Your task to perform on an android device: open app "eBay: The shopping marketplace" (install if not already installed) Image 0: 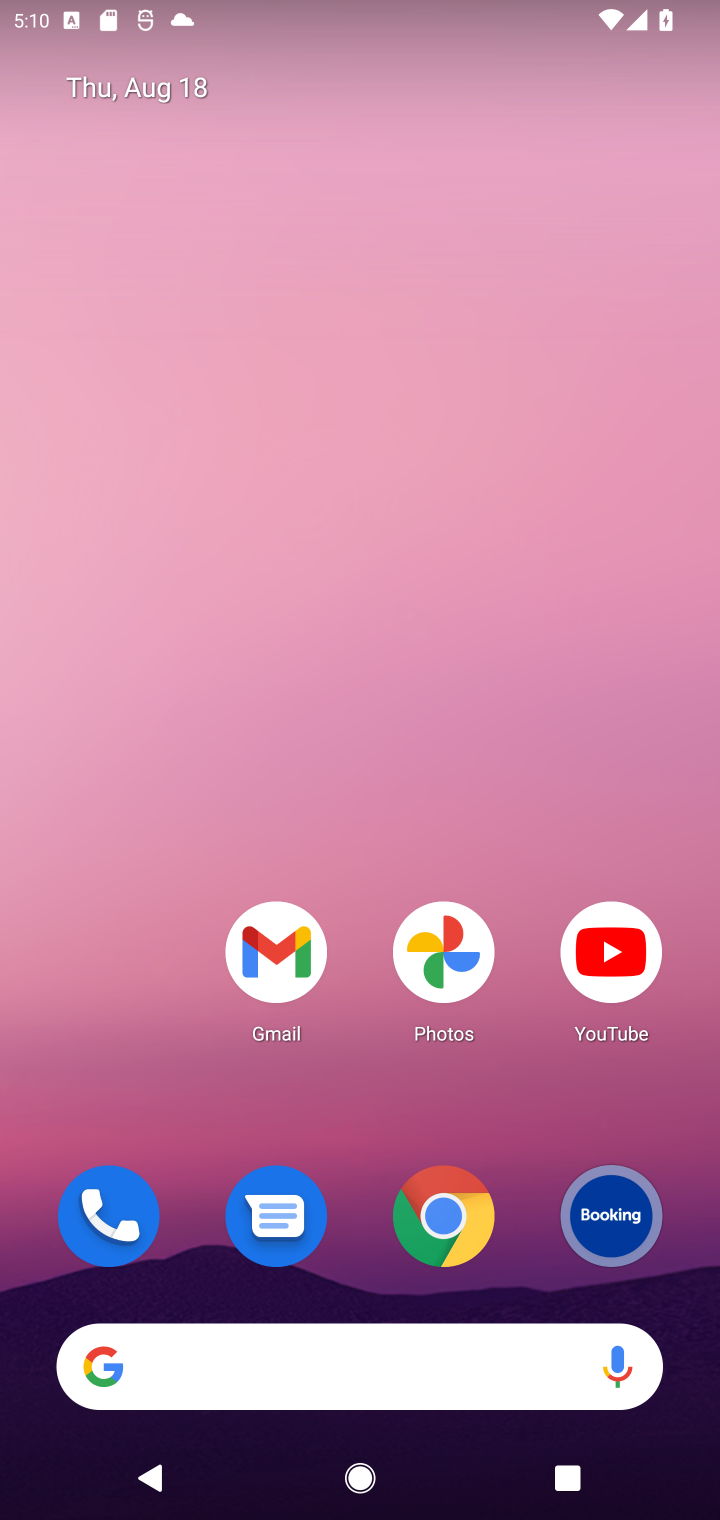
Step 0: drag from (333, 1130) to (352, 340)
Your task to perform on an android device: open app "eBay: The shopping marketplace" (install if not already installed) Image 1: 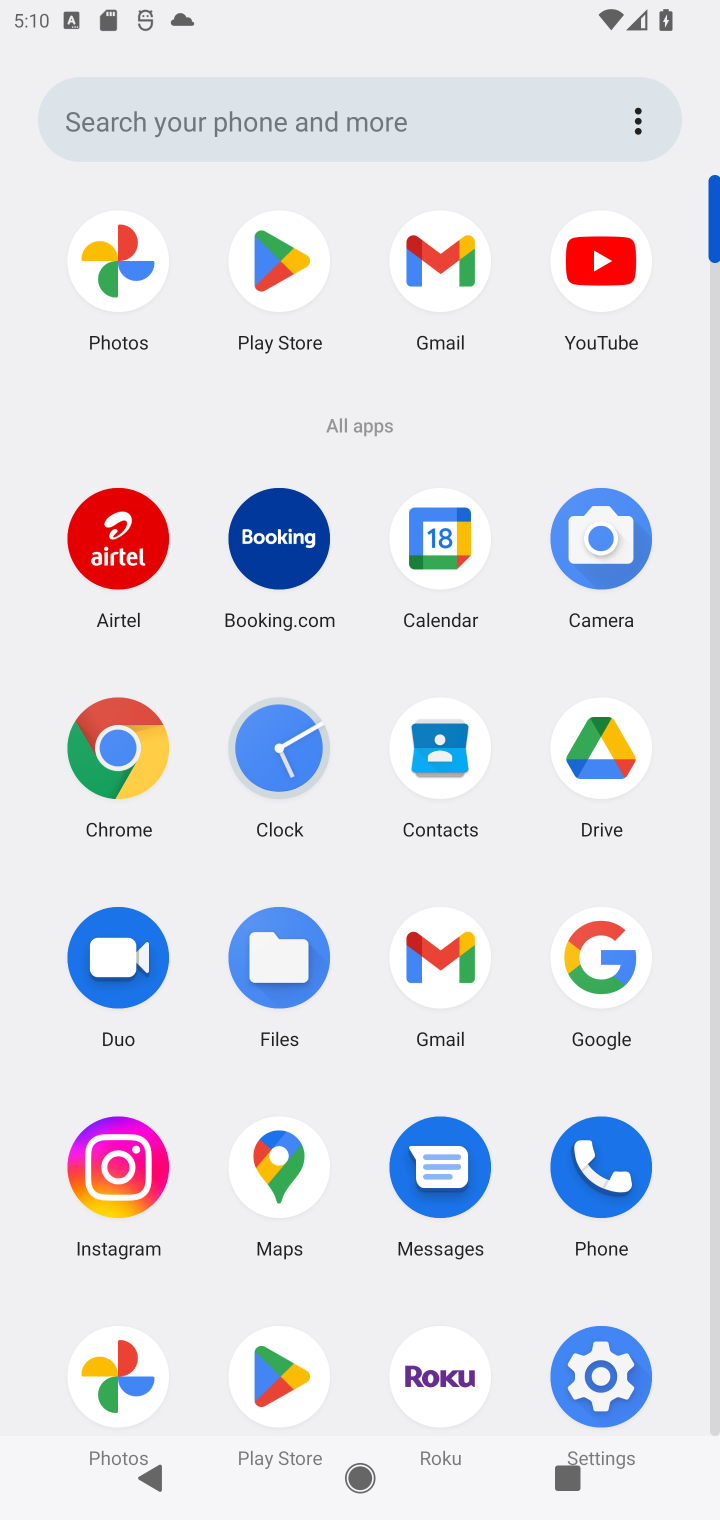
Step 1: click (288, 270)
Your task to perform on an android device: open app "eBay: The shopping marketplace" (install if not already installed) Image 2: 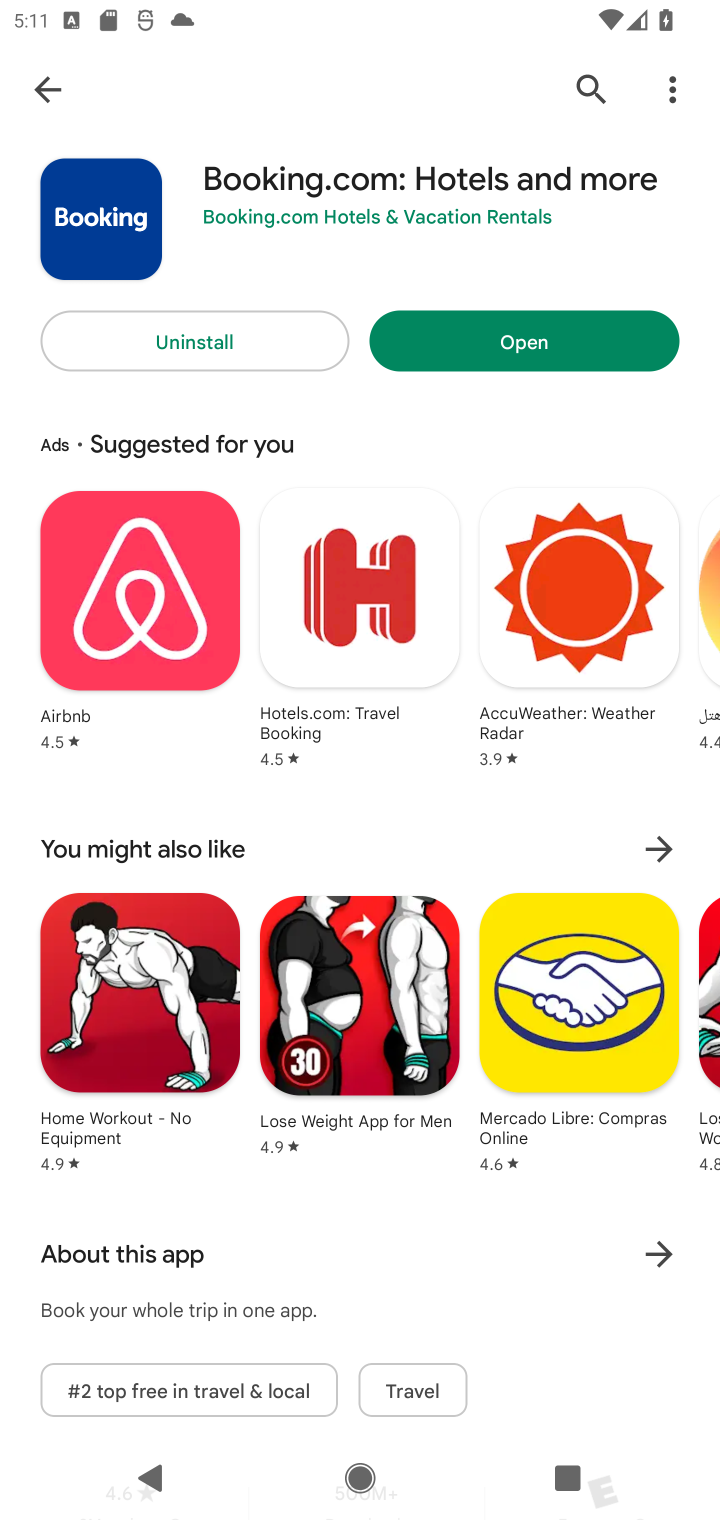
Step 2: click (591, 91)
Your task to perform on an android device: open app "eBay: The shopping marketplace" (install if not already installed) Image 3: 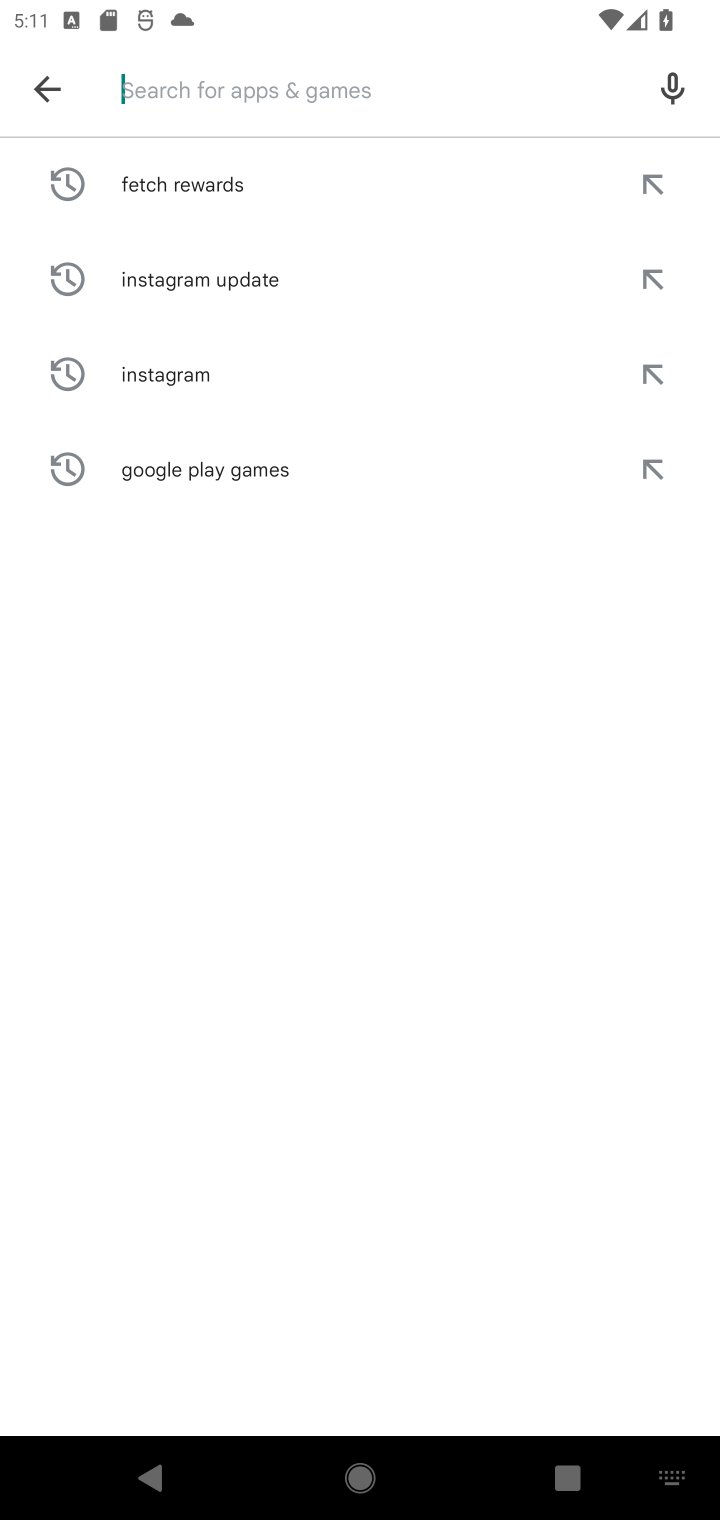
Step 3: type "eBay: The shopping marketplace"
Your task to perform on an android device: open app "eBay: The shopping marketplace" (install if not already installed) Image 4: 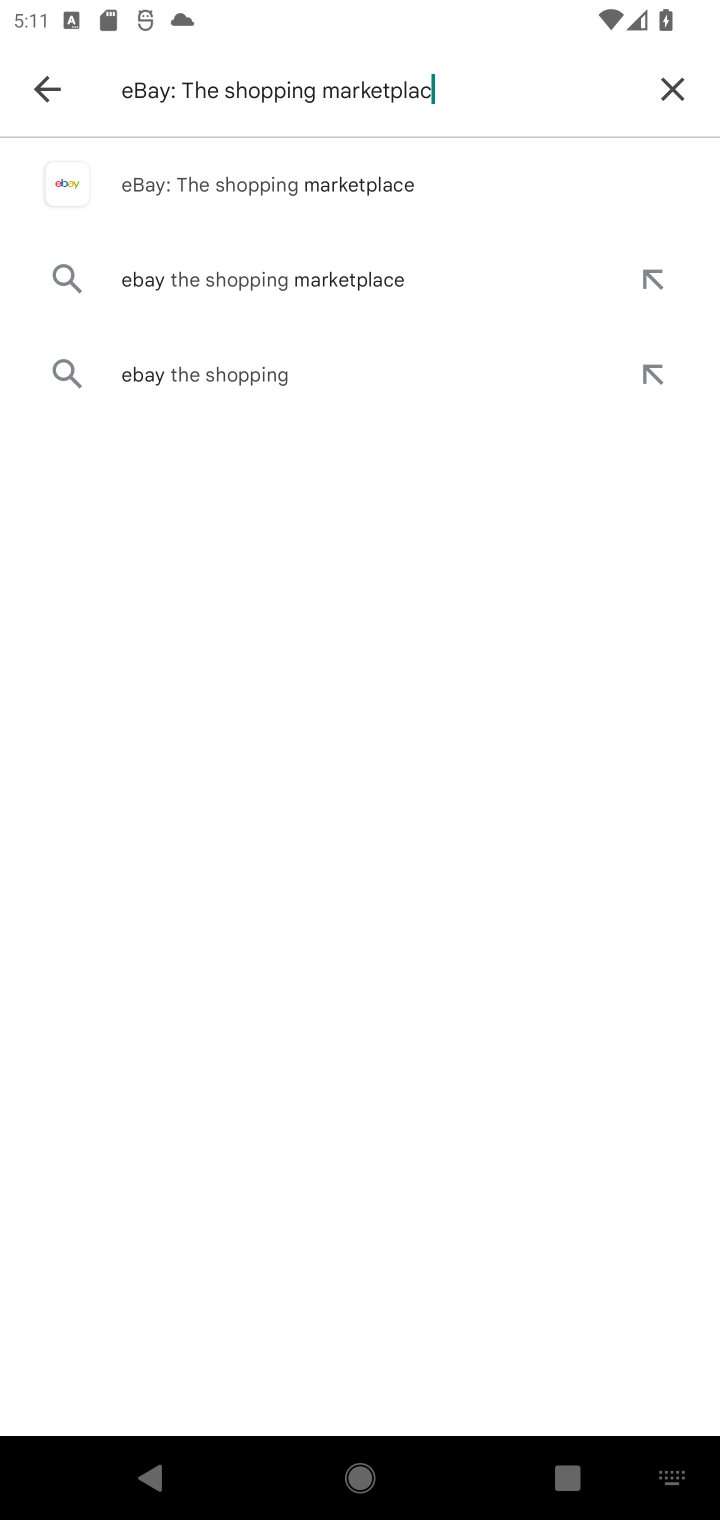
Step 4: type ""
Your task to perform on an android device: open app "eBay: The shopping marketplace" (install if not already installed) Image 5: 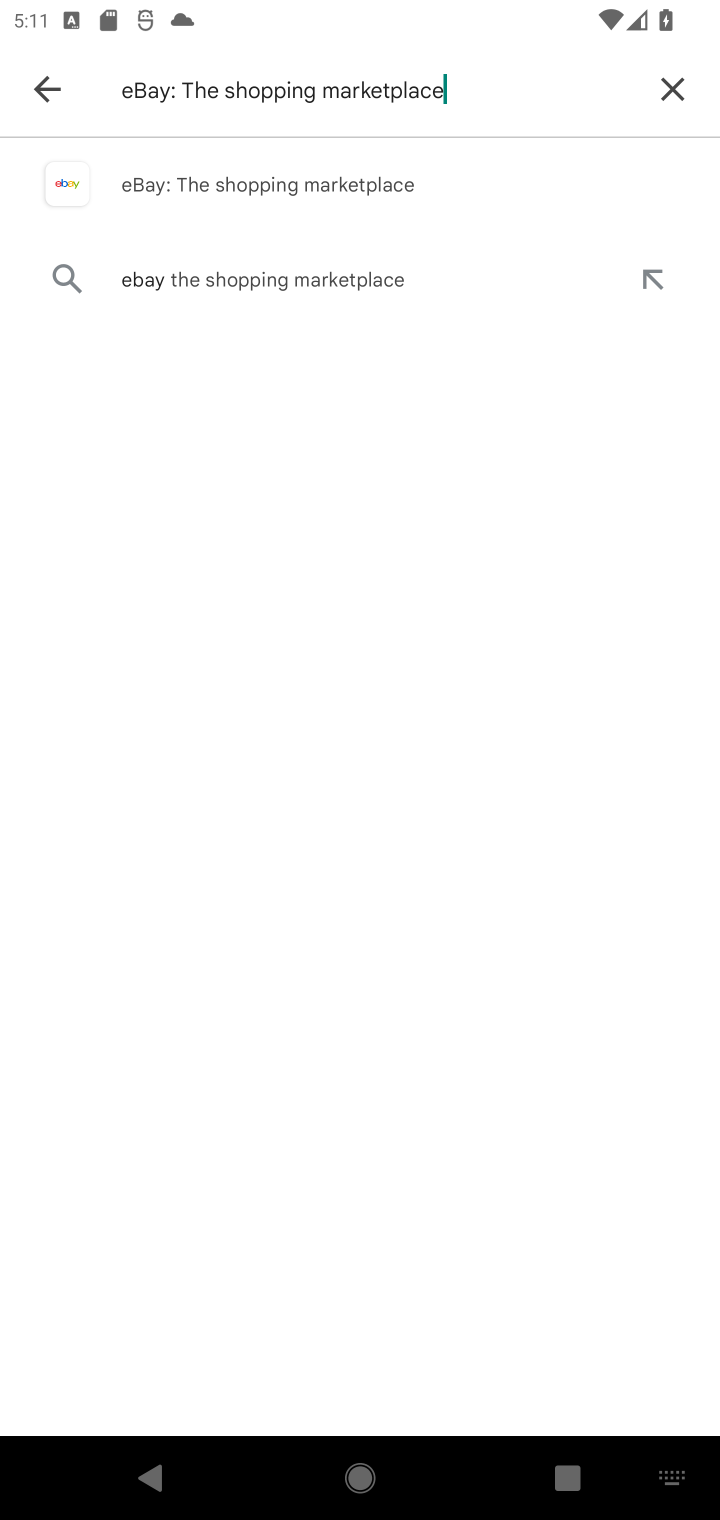
Step 5: click (242, 187)
Your task to perform on an android device: open app "eBay: The shopping marketplace" (install if not already installed) Image 6: 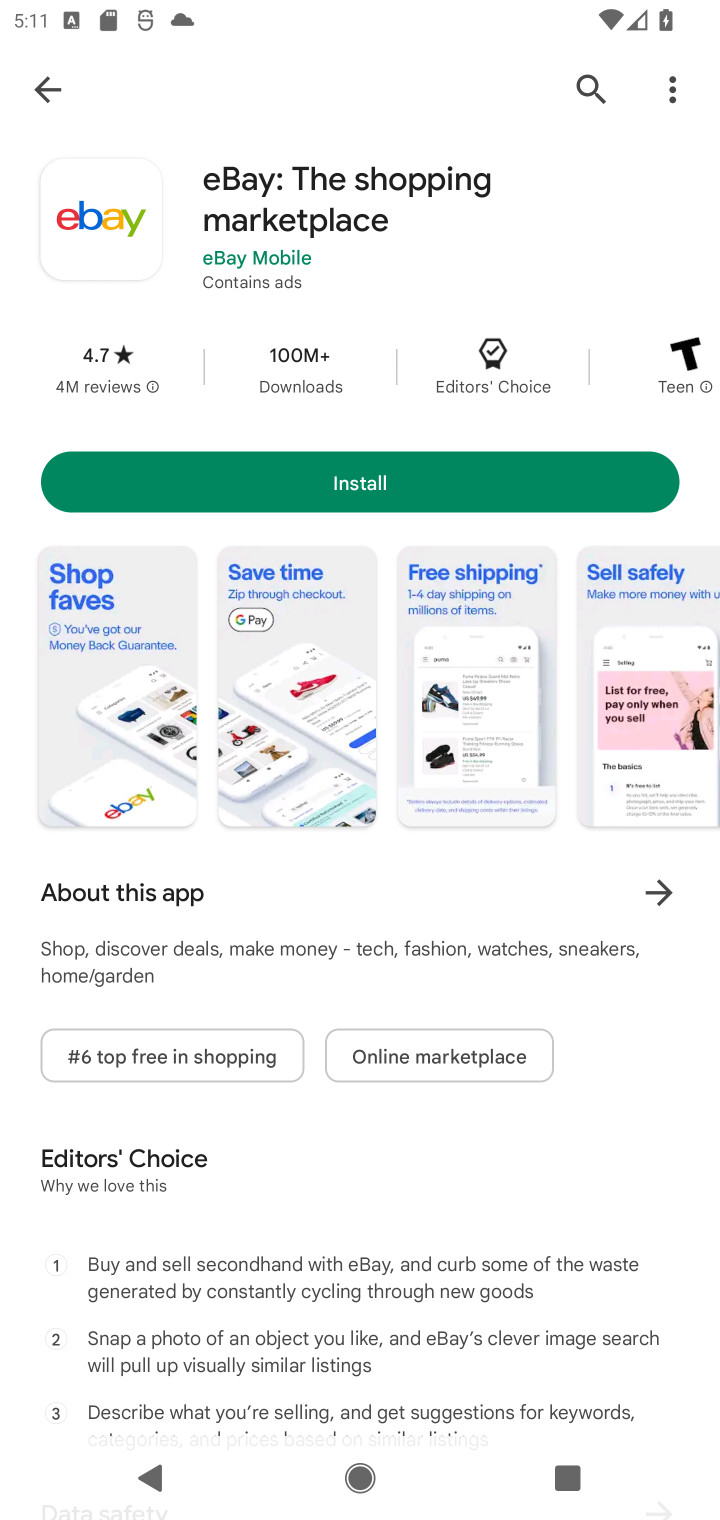
Step 6: click (497, 467)
Your task to perform on an android device: open app "eBay: The shopping marketplace" (install if not already installed) Image 7: 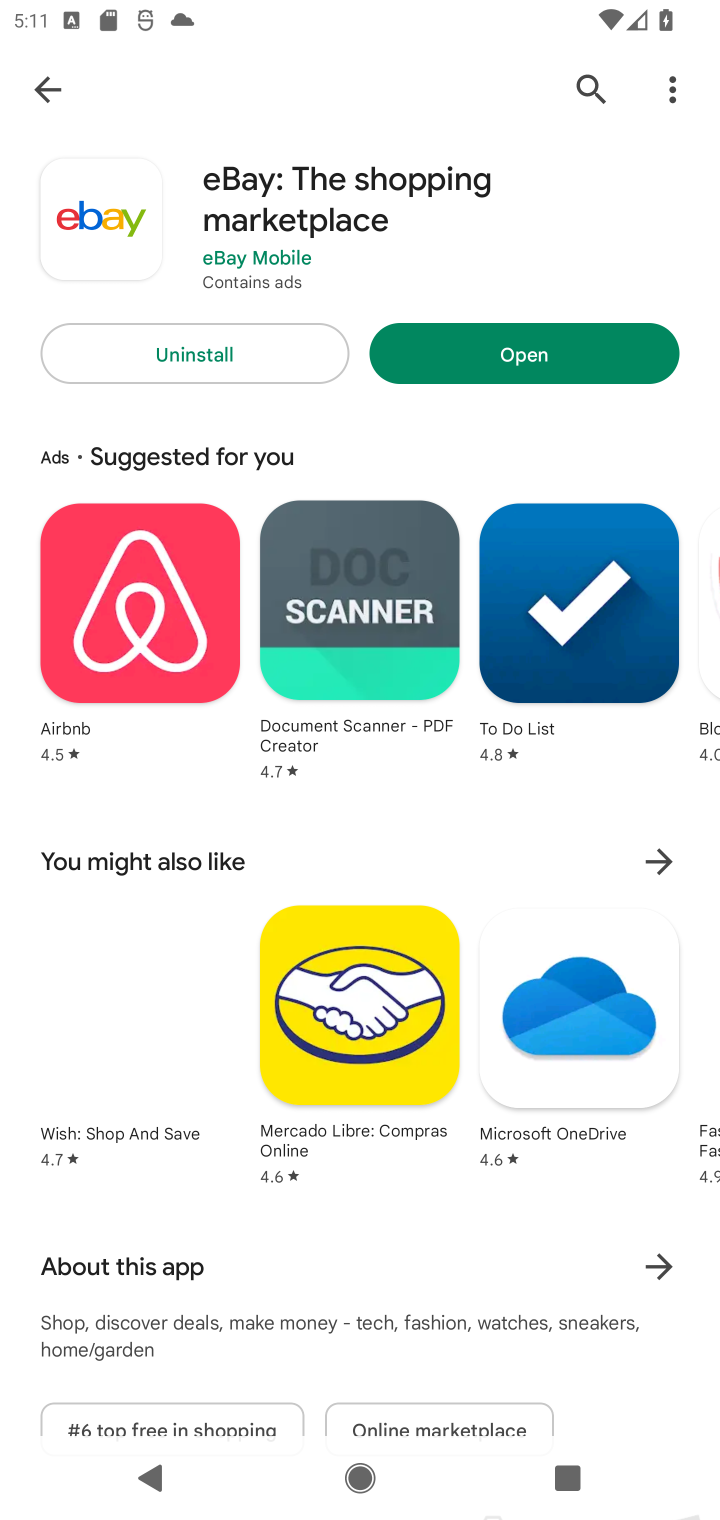
Step 7: click (484, 355)
Your task to perform on an android device: open app "eBay: The shopping marketplace" (install if not already installed) Image 8: 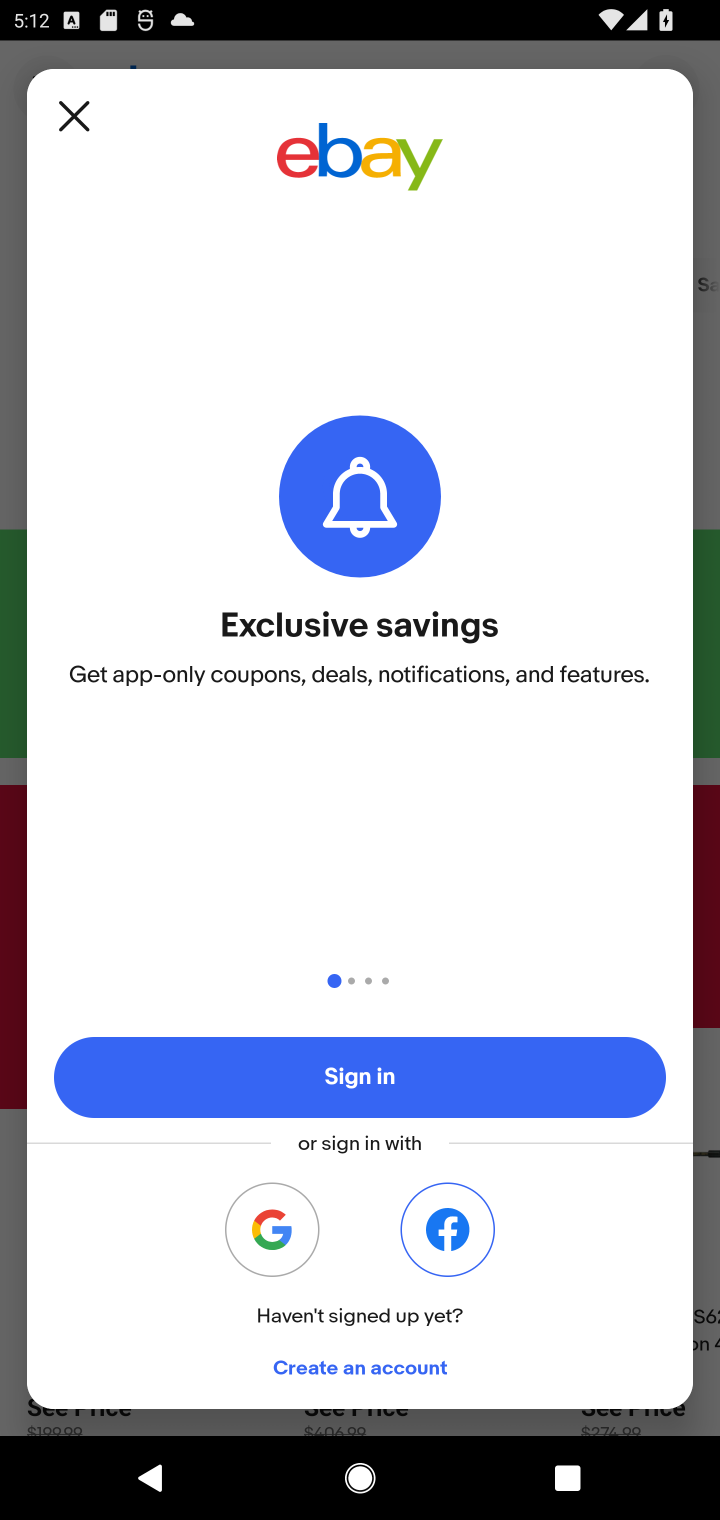
Step 8: click (55, 120)
Your task to perform on an android device: open app "eBay: The shopping marketplace" (install if not already installed) Image 9: 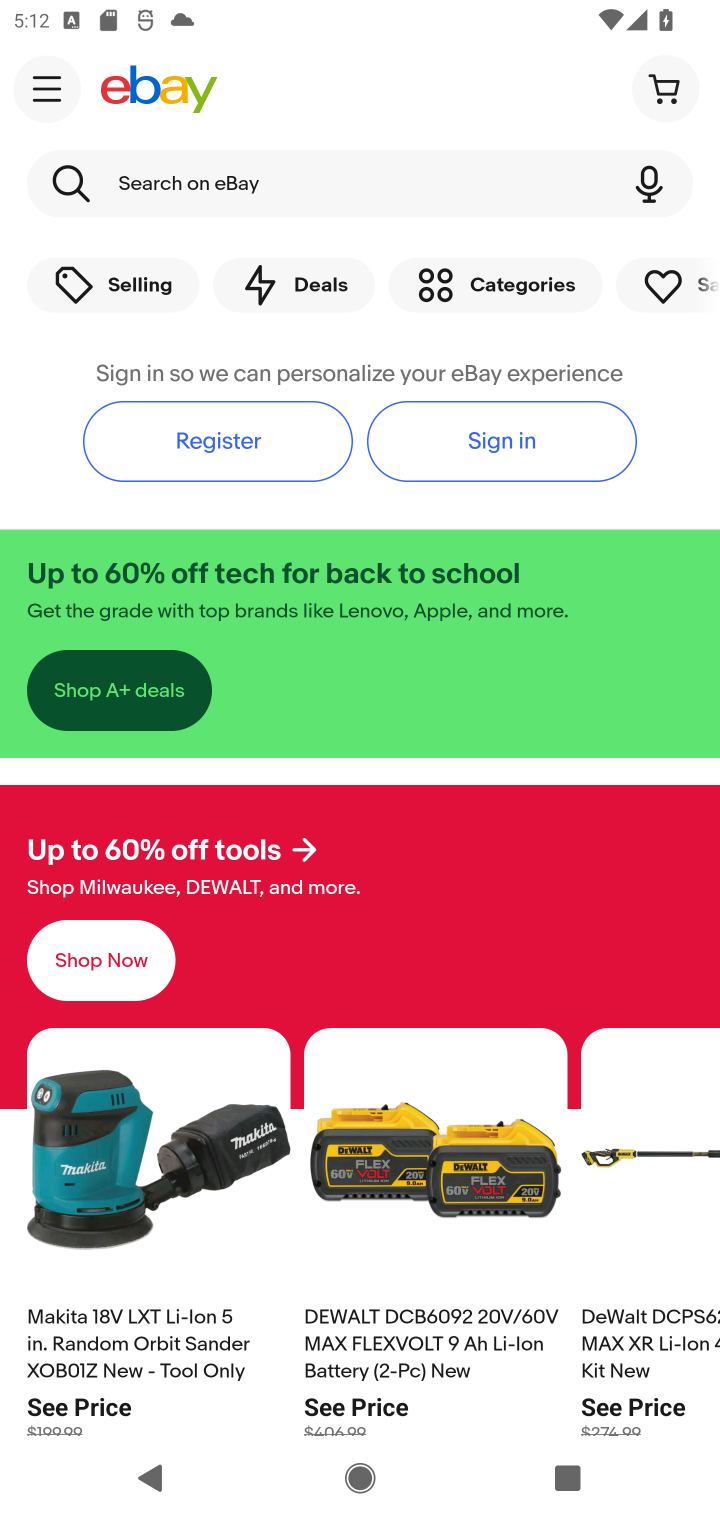
Step 9: task complete